Your task to perform on an android device: turn off translation in the chrome app Image 0: 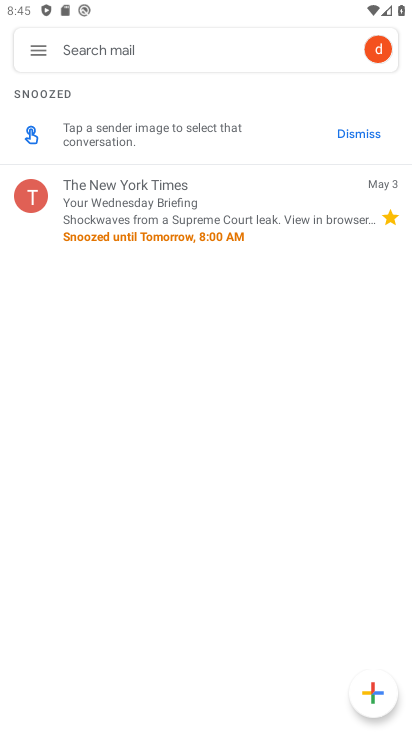
Step 0: press home button
Your task to perform on an android device: turn off translation in the chrome app Image 1: 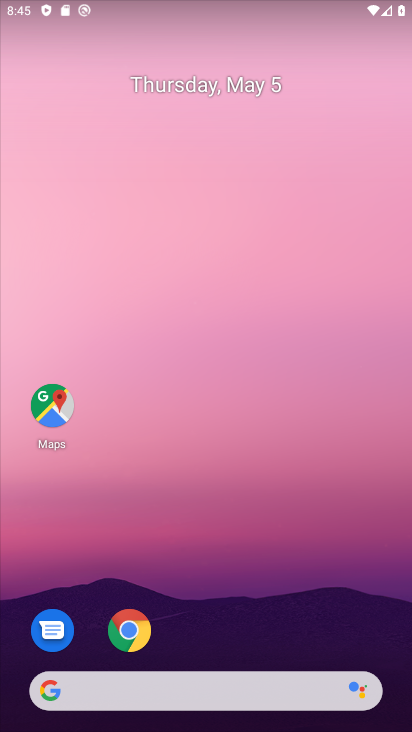
Step 1: click (136, 629)
Your task to perform on an android device: turn off translation in the chrome app Image 2: 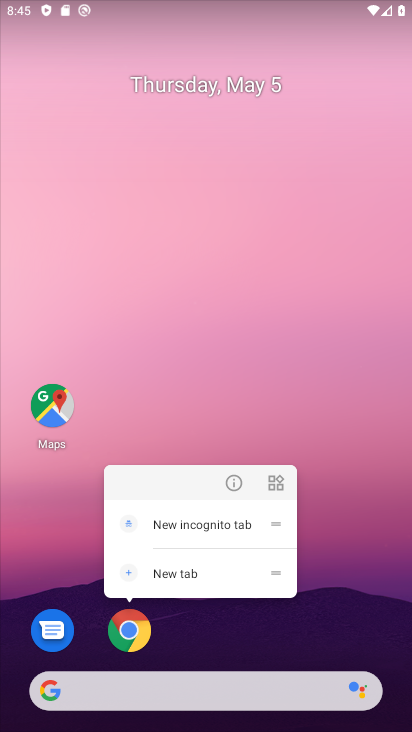
Step 2: click (137, 626)
Your task to perform on an android device: turn off translation in the chrome app Image 3: 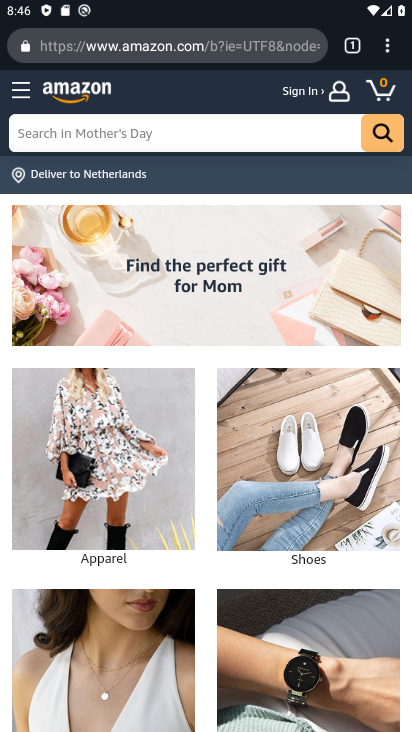
Step 3: click (391, 41)
Your task to perform on an android device: turn off translation in the chrome app Image 4: 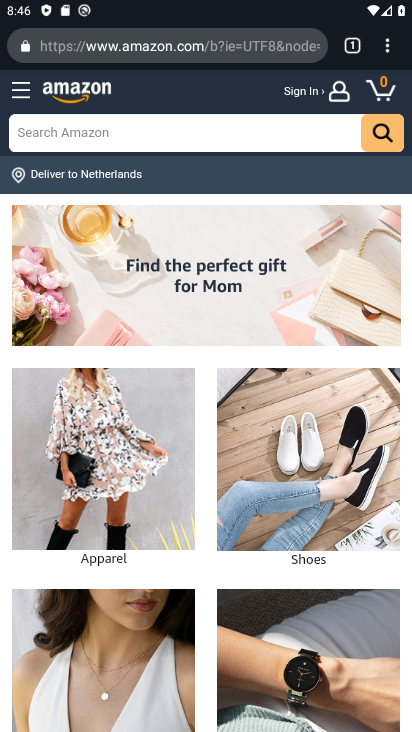
Step 4: click (383, 47)
Your task to perform on an android device: turn off translation in the chrome app Image 5: 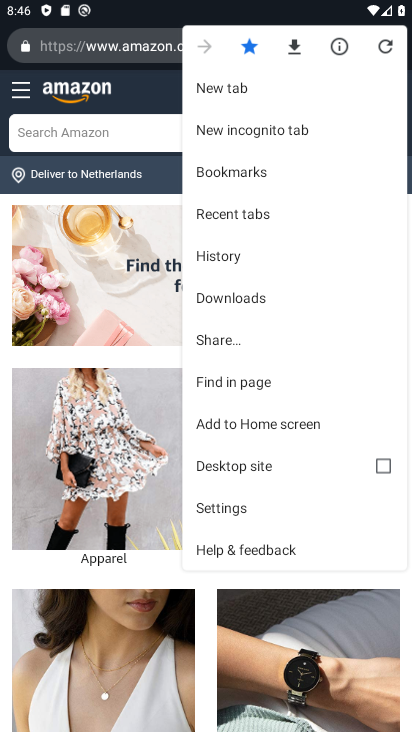
Step 5: click (230, 501)
Your task to perform on an android device: turn off translation in the chrome app Image 6: 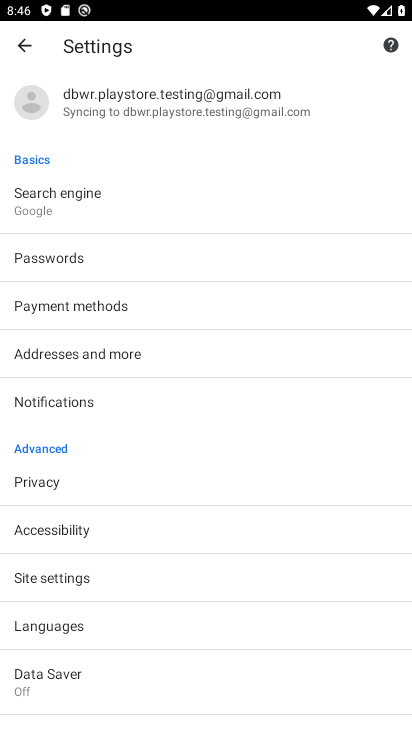
Step 6: click (93, 621)
Your task to perform on an android device: turn off translation in the chrome app Image 7: 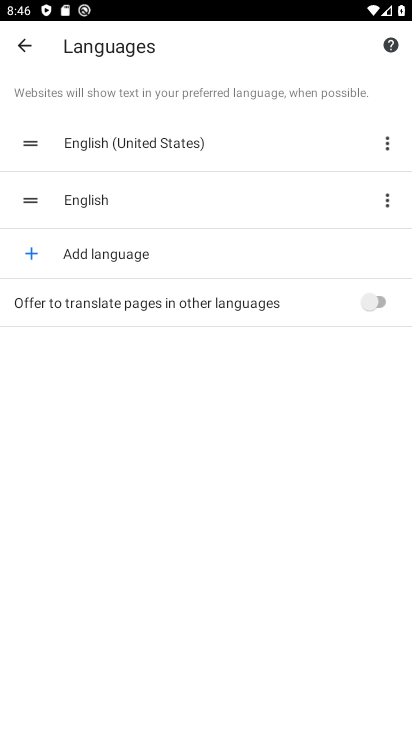
Step 7: task complete